Your task to perform on an android device: open a bookmark in the chrome app Image 0: 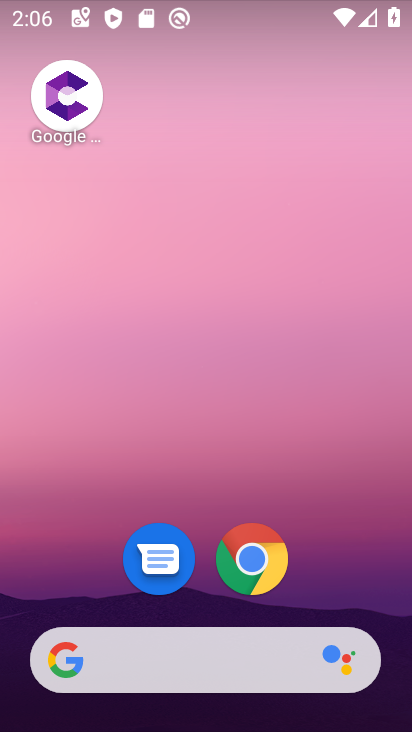
Step 0: drag from (217, 564) to (296, 79)
Your task to perform on an android device: open a bookmark in the chrome app Image 1: 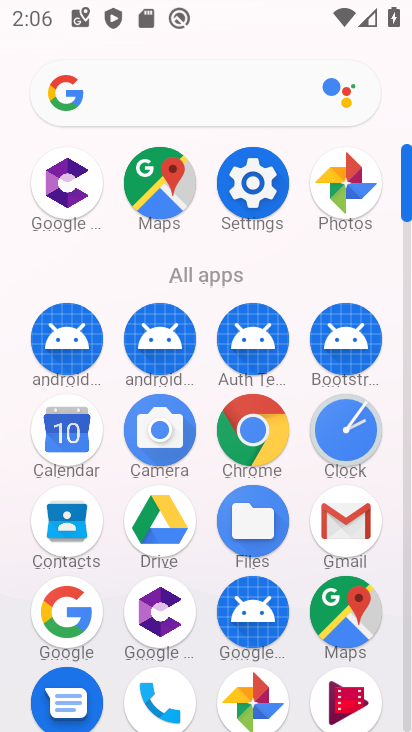
Step 1: click (260, 447)
Your task to perform on an android device: open a bookmark in the chrome app Image 2: 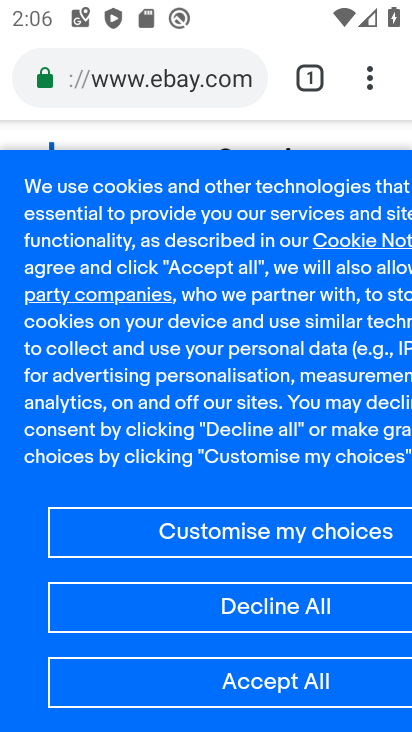
Step 2: task complete